Your task to perform on an android device: clear history in the chrome app Image 0: 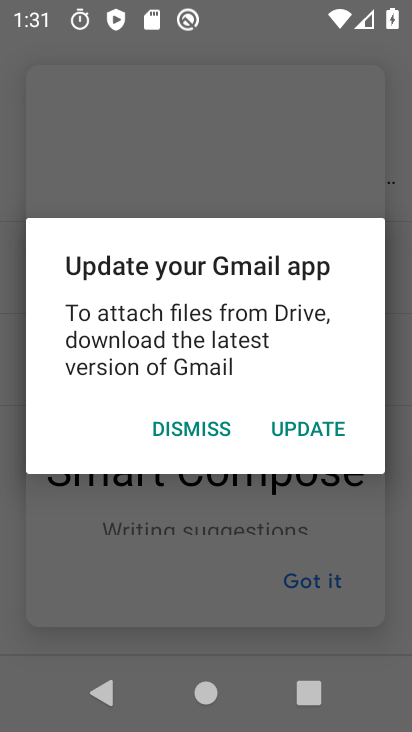
Step 0: press home button
Your task to perform on an android device: clear history in the chrome app Image 1: 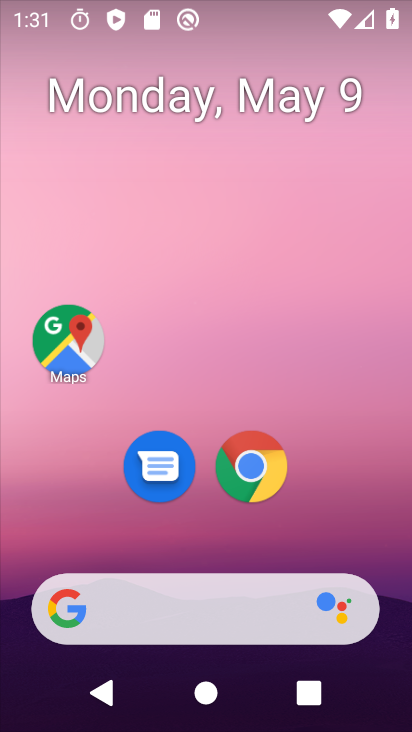
Step 1: drag from (218, 579) to (229, 210)
Your task to perform on an android device: clear history in the chrome app Image 2: 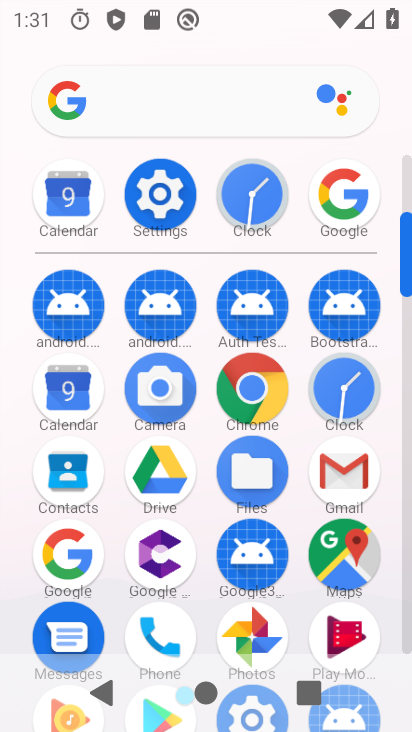
Step 2: click (244, 371)
Your task to perform on an android device: clear history in the chrome app Image 3: 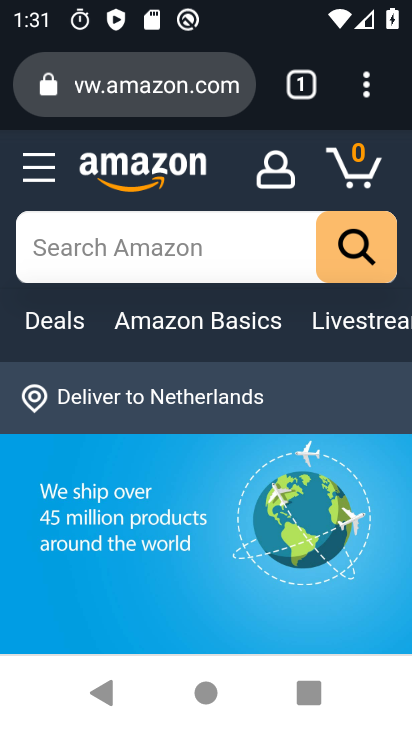
Step 3: click (362, 88)
Your task to perform on an android device: clear history in the chrome app Image 4: 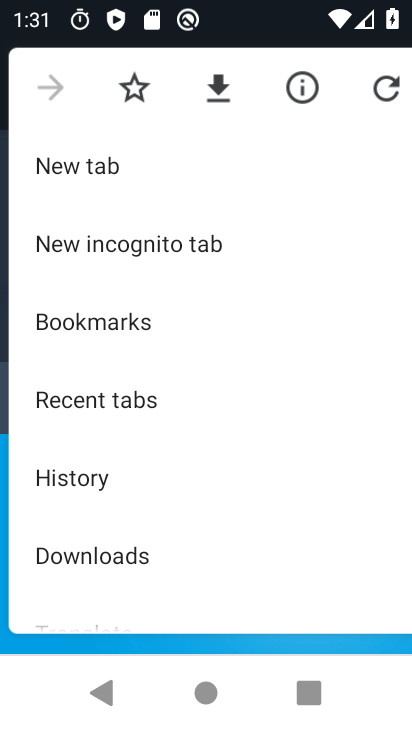
Step 4: click (202, 461)
Your task to perform on an android device: clear history in the chrome app Image 5: 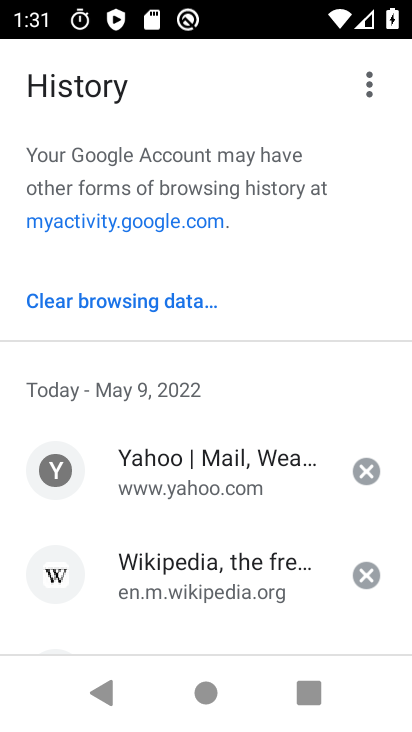
Step 5: click (162, 302)
Your task to perform on an android device: clear history in the chrome app Image 6: 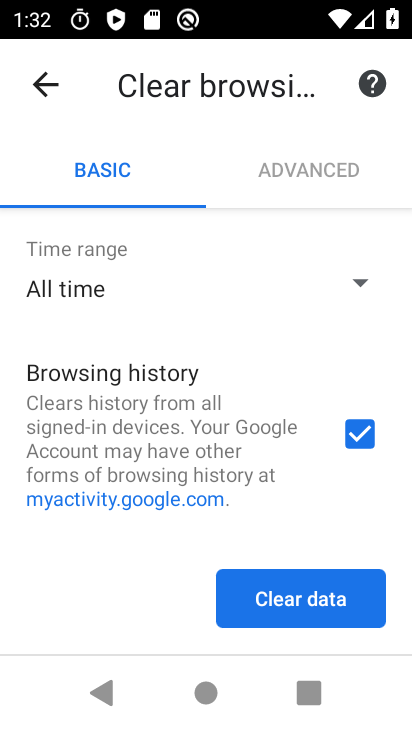
Step 6: click (325, 601)
Your task to perform on an android device: clear history in the chrome app Image 7: 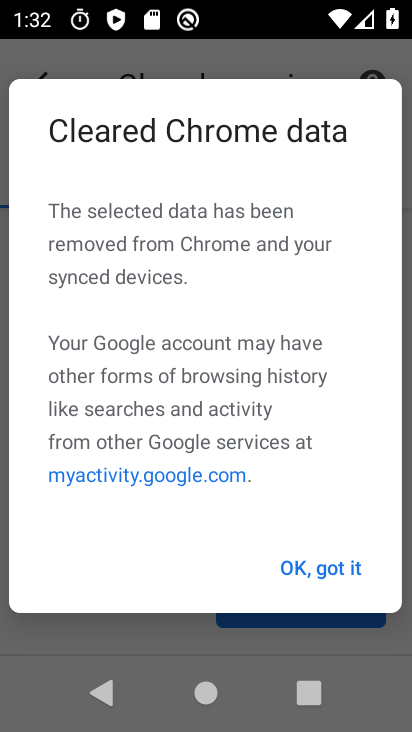
Step 7: click (357, 574)
Your task to perform on an android device: clear history in the chrome app Image 8: 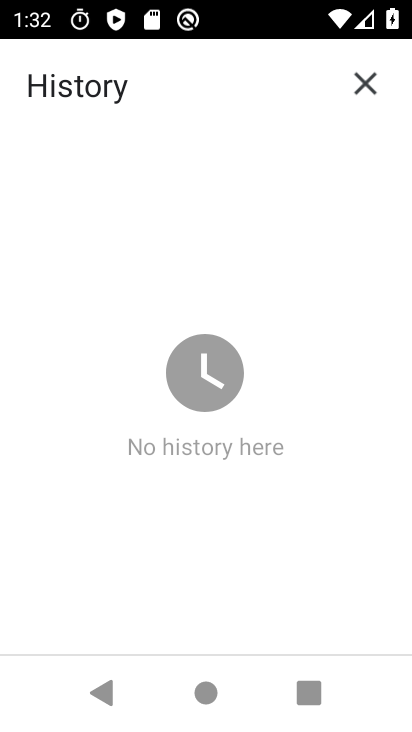
Step 8: task complete